Your task to perform on an android device: change notifications settings Image 0: 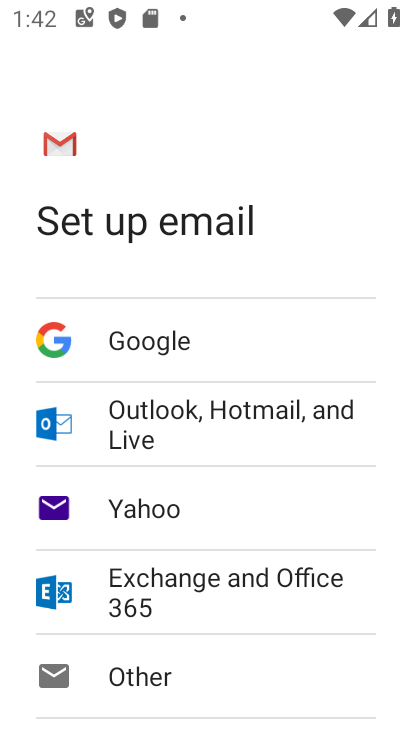
Step 0: press home button
Your task to perform on an android device: change notifications settings Image 1: 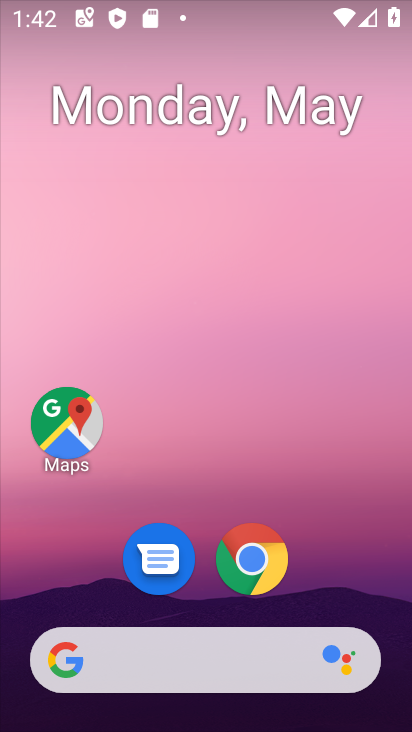
Step 1: drag from (182, 703) to (161, 70)
Your task to perform on an android device: change notifications settings Image 2: 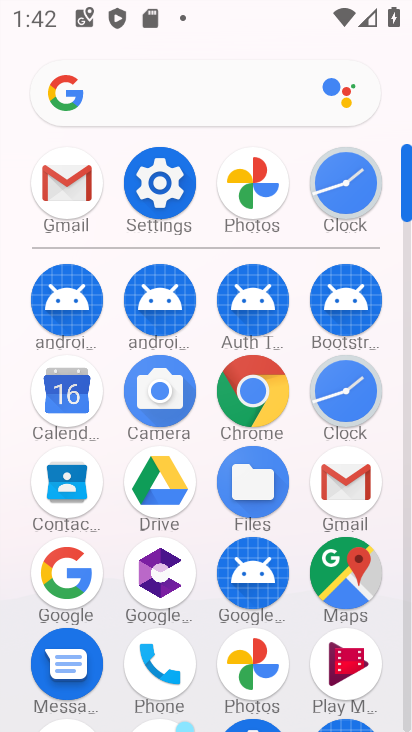
Step 2: click (172, 174)
Your task to perform on an android device: change notifications settings Image 3: 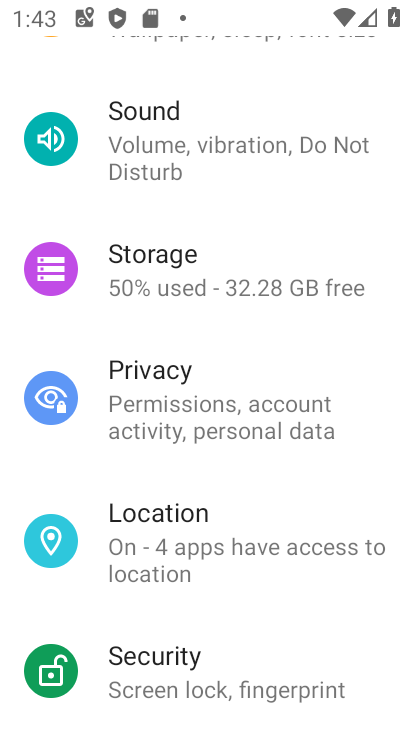
Step 3: drag from (194, 278) to (200, 613)
Your task to perform on an android device: change notifications settings Image 4: 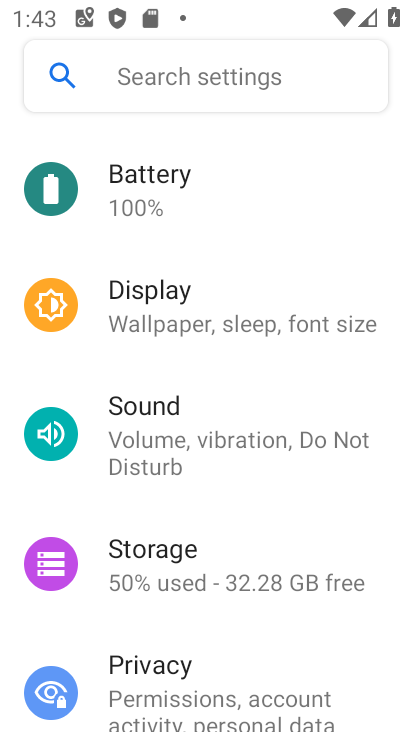
Step 4: drag from (215, 171) to (266, 717)
Your task to perform on an android device: change notifications settings Image 5: 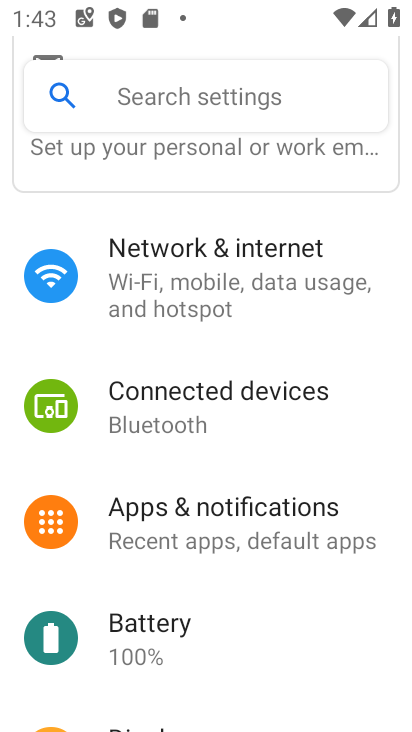
Step 5: click (250, 521)
Your task to perform on an android device: change notifications settings Image 6: 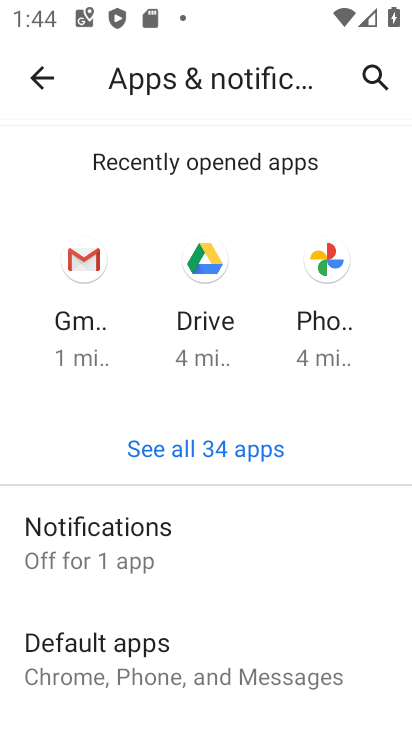
Step 6: click (104, 529)
Your task to perform on an android device: change notifications settings Image 7: 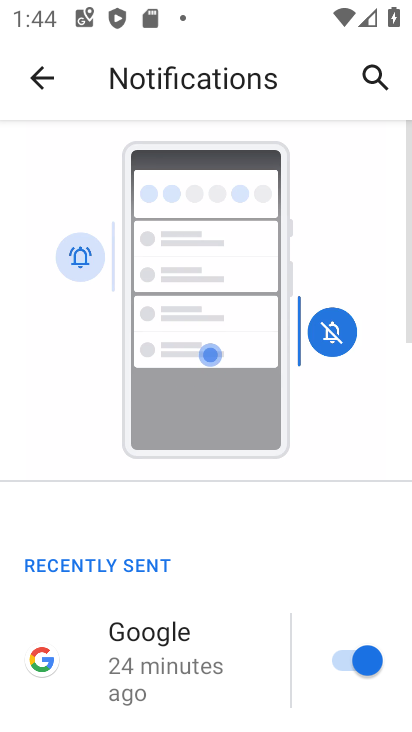
Step 7: click (355, 658)
Your task to perform on an android device: change notifications settings Image 8: 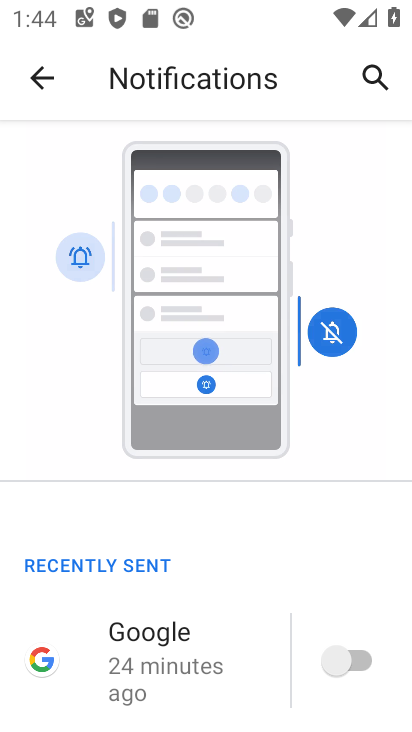
Step 8: task complete